Your task to perform on an android device: What's the weather? Image 0: 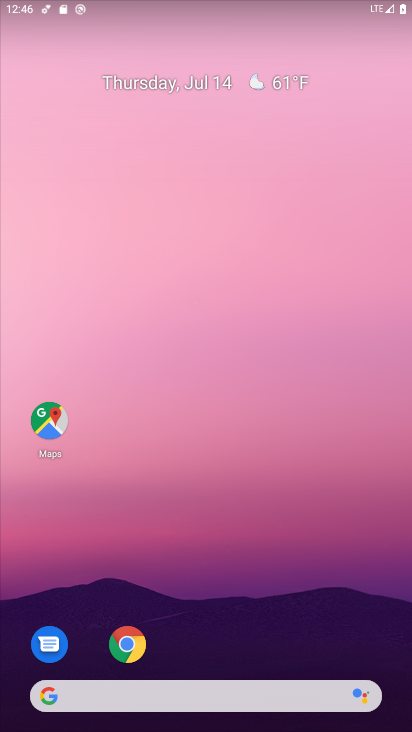
Step 0: click (204, 687)
Your task to perform on an android device: What's the weather? Image 1: 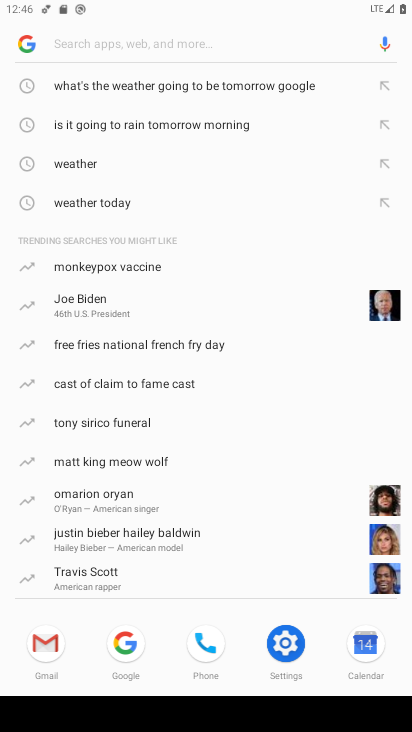
Step 1: type "What's te weather"
Your task to perform on an android device: What's the weather? Image 2: 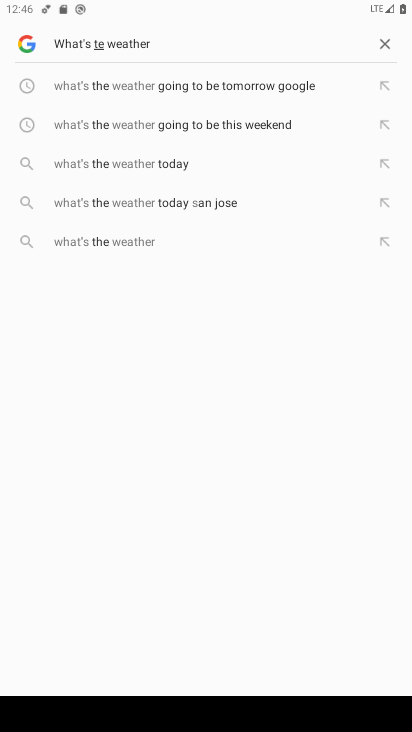
Step 2: click (137, 244)
Your task to perform on an android device: What's the weather? Image 3: 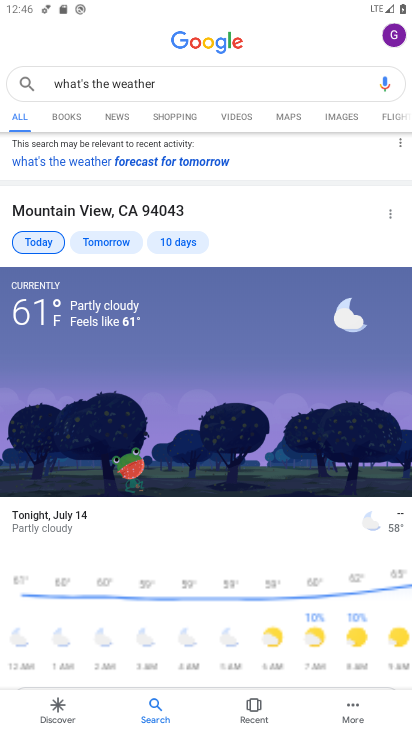
Step 3: task complete